Your task to perform on an android device: Open Google Maps Image 0: 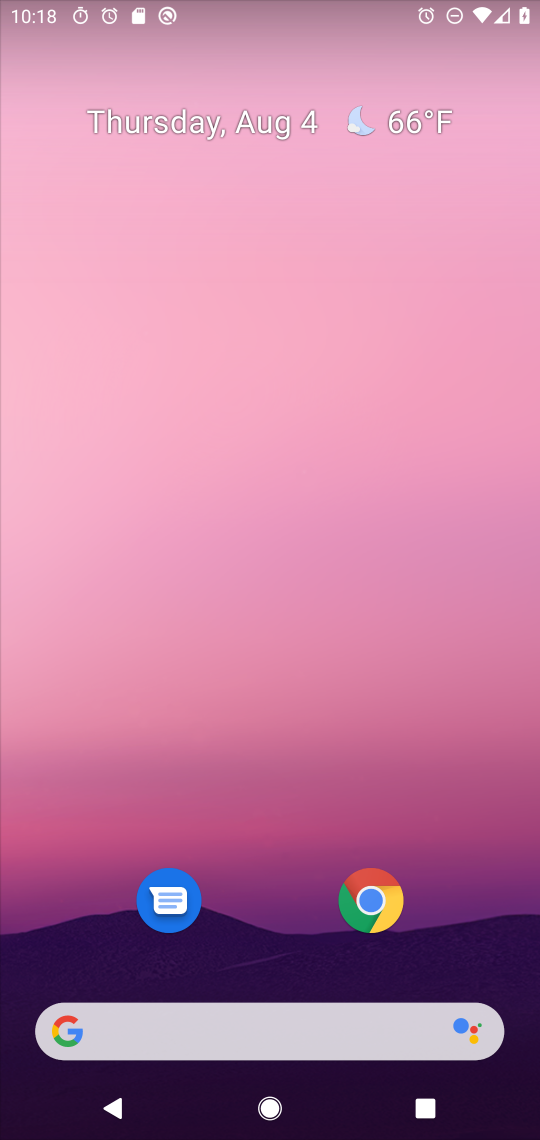
Step 0: drag from (263, 1022) to (194, 297)
Your task to perform on an android device: Open Google Maps Image 1: 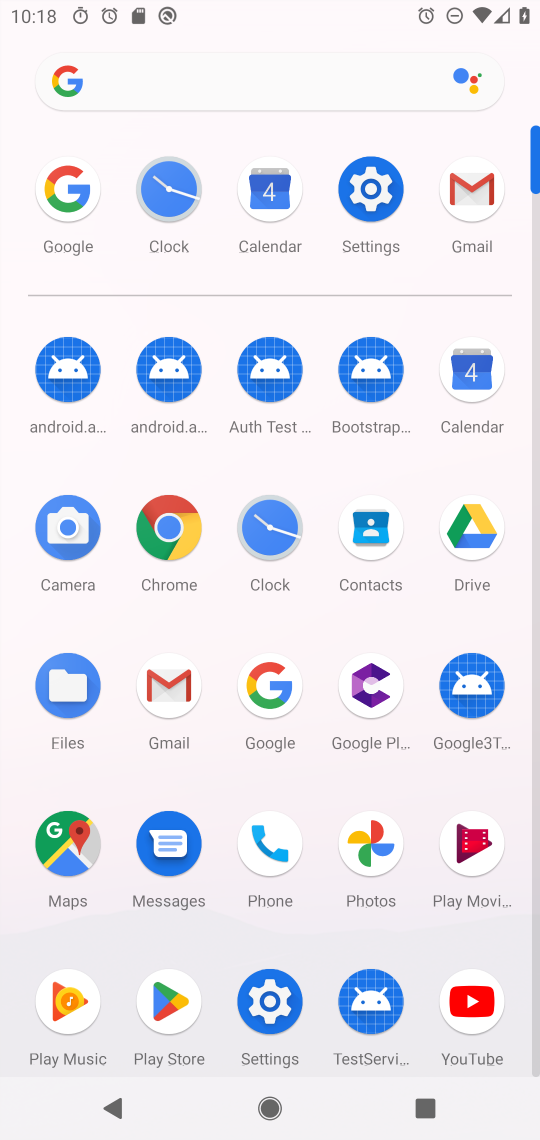
Step 1: click (73, 842)
Your task to perform on an android device: Open Google Maps Image 2: 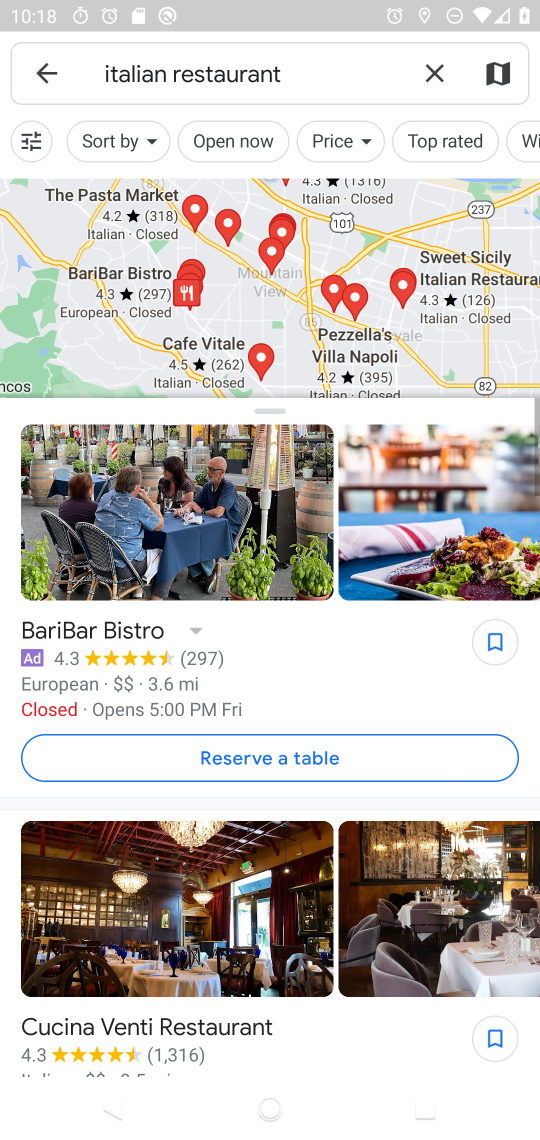
Step 2: click (442, 70)
Your task to perform on an android device: Open Google Maps Image 3: 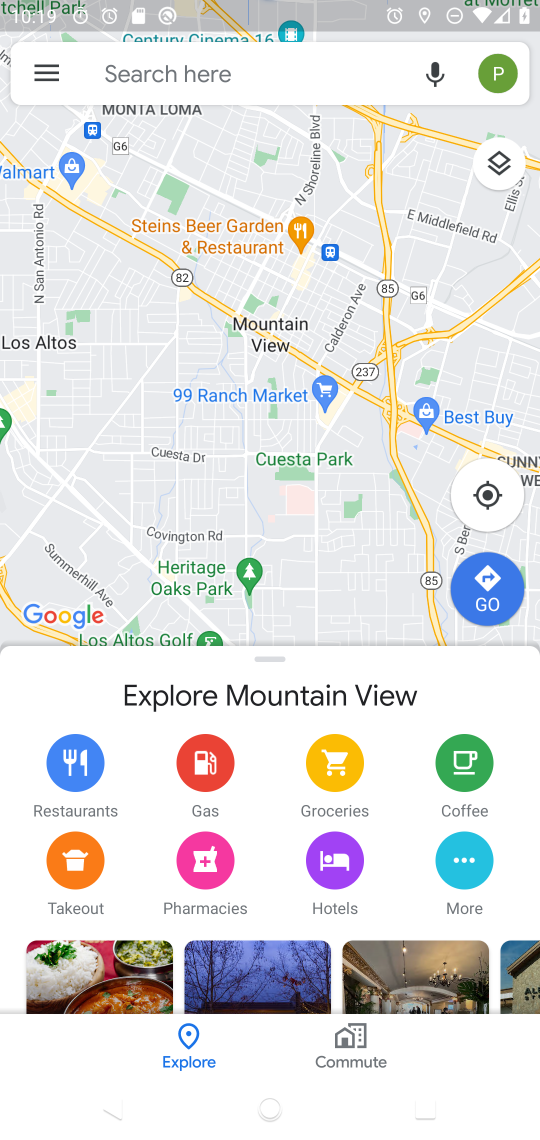
Step 3: task complete